Your task to perform on an android device: Open privacy settings Image 0: 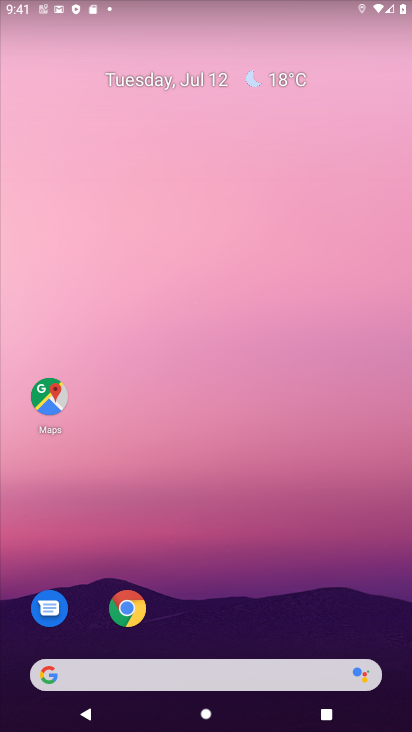
Step 0: drag from (209, 561) to (233, 229)
Your task to perform on an android device: Open privacy settings Image 1: 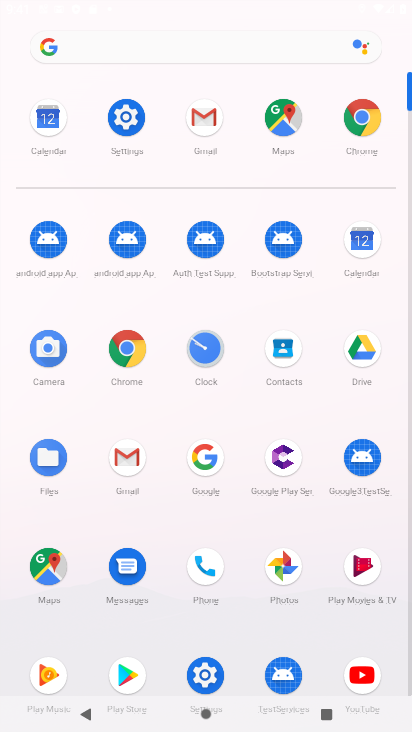
Step 1: click (122, 117)
Your task to perform on an android device: Open privacy settings Image 2: 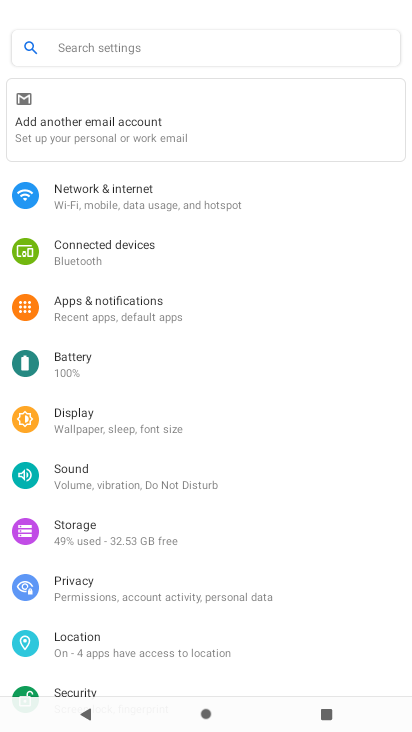
Step 2: click (80, 580)
Your task to perform on an android device: Open privacy settings Image 3: 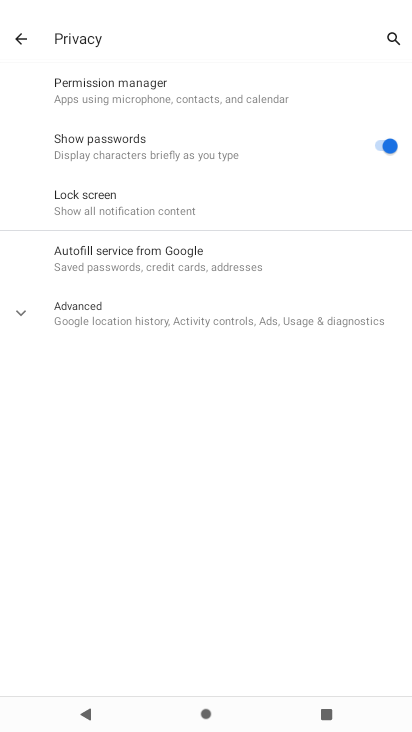
Step 3: task complete